Your task to perform on an android device: open device folders in google photos Image 0: 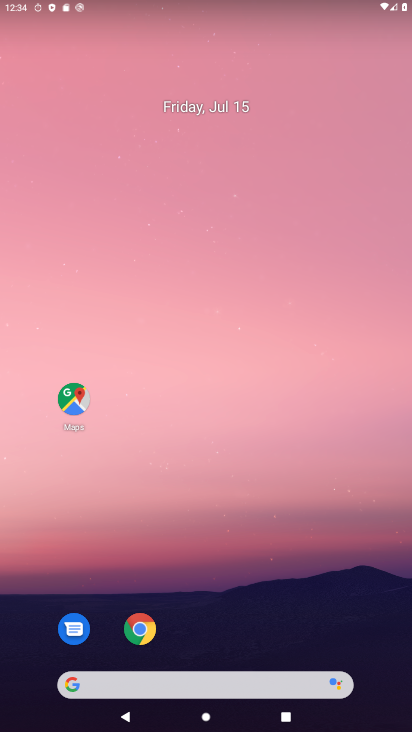
Step 0: drag from (222, 625) to (243, 70)
Your task to perform on an android device: open device folders in google photos Image 1: 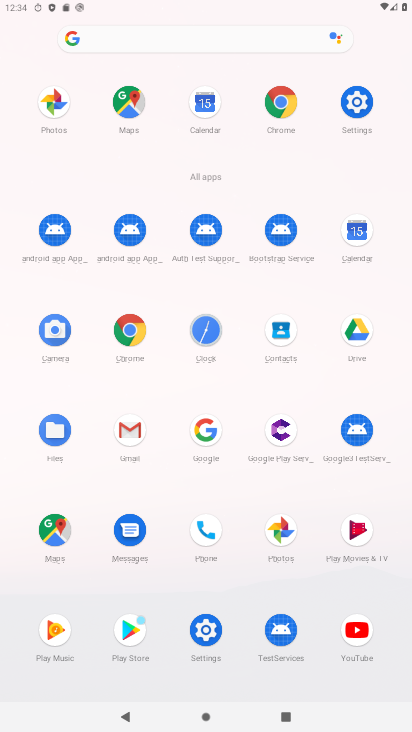
Step 1: click (275, 537)
Your task to perform on an android device: open device folders in google photos Image 2: 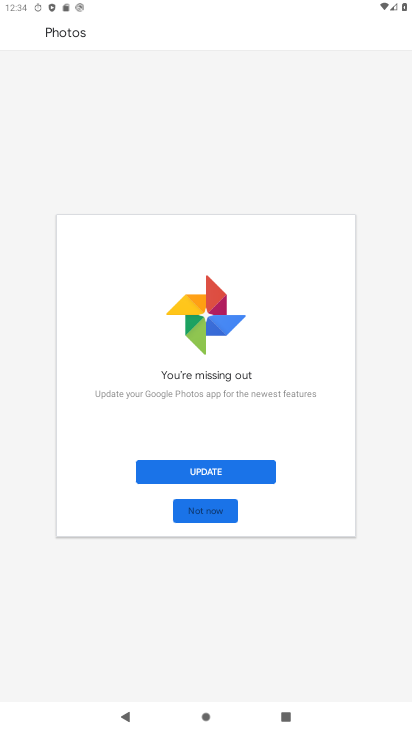
Step 2: click (218, 515)
Your task to perform on an android device: open device folders in google photos Image 3: 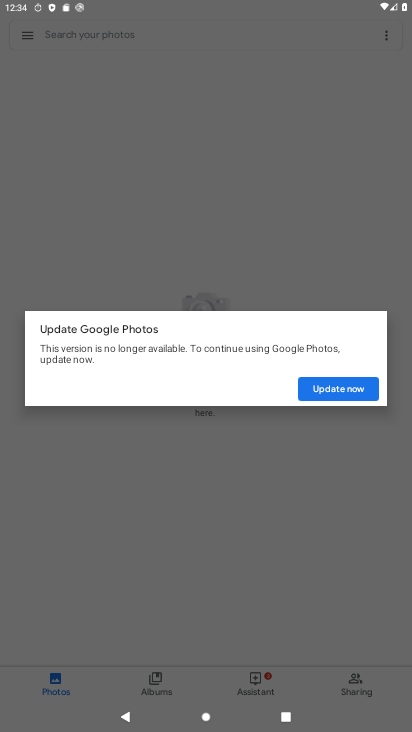
Step 3: click (339, 380)
Your task to perform on an android device: open device folders in google photos Image 4: 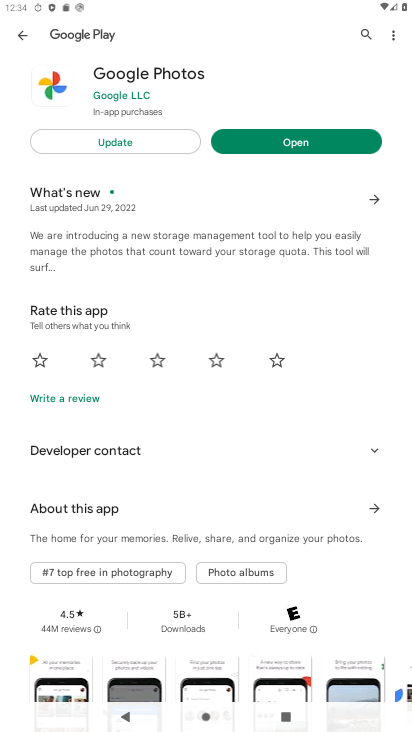
Step 4: click (266, 147)
Your task to perform on an android device: open device folders in google photos Image 5: 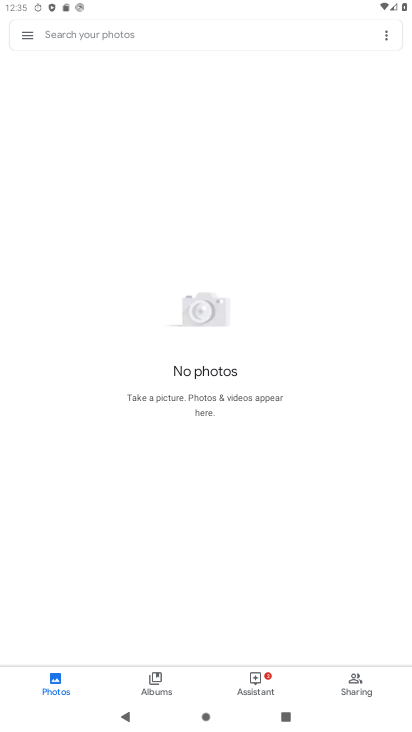
Step 5: click (25, 36)
Your task to perform on an android device: open device folders in google photos Image 6: 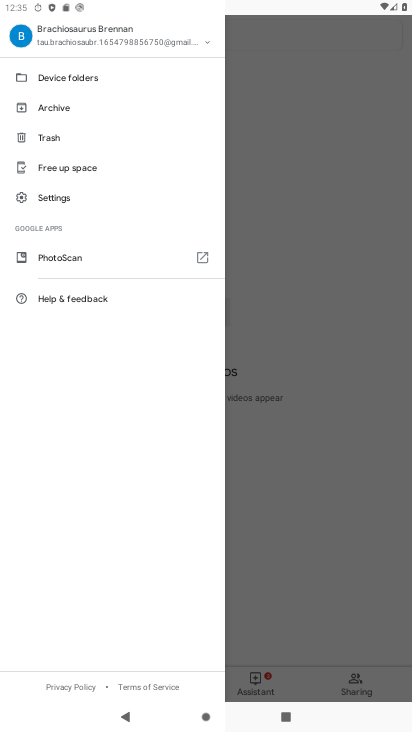
Step 6: click (69, 74)
Your task to perform on an android device: open device folders in google photos Image 7: 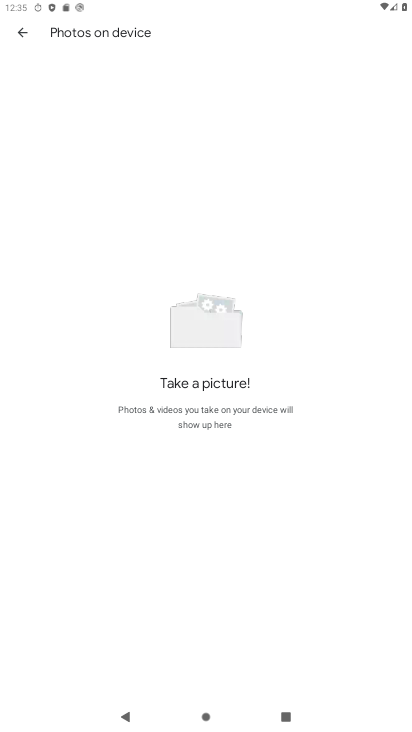
Step 7: task complete